Your task to perform on an android device: Open Yahoo.com Image 0: 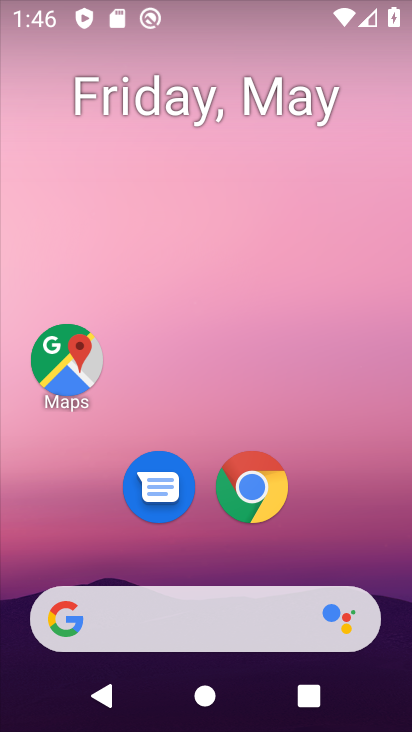
Step 0: click (253, 482)
Your task to perform on an android device: Open Yahoo.com Image 1: 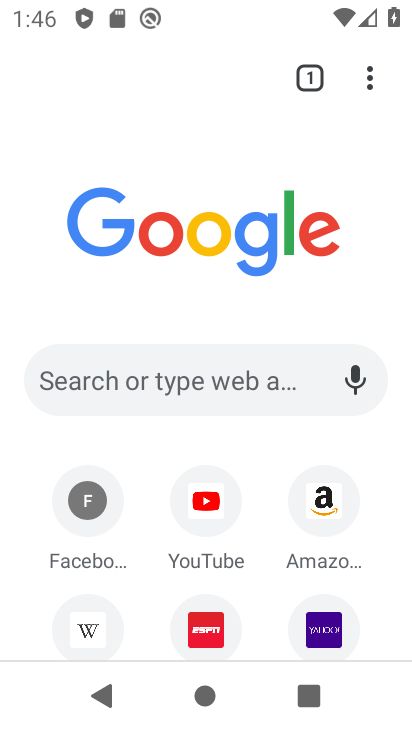
Step 1: click (316, 637)
Your task to perform on an android device: Open Yahoo.com Image 2: 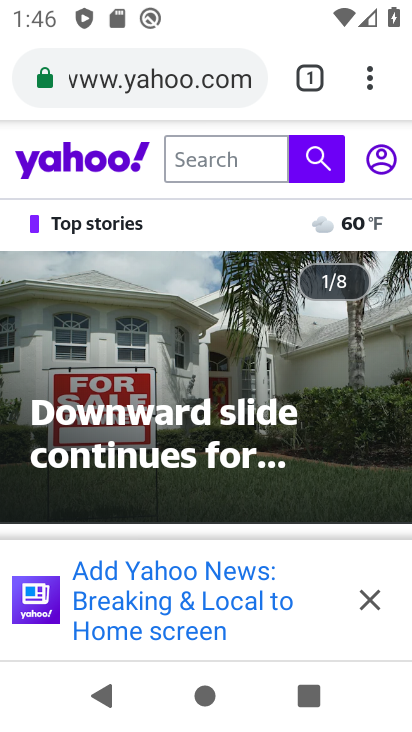
Step 2: task complete